Your task to perform on an android device: set the stopwatch Image 0: 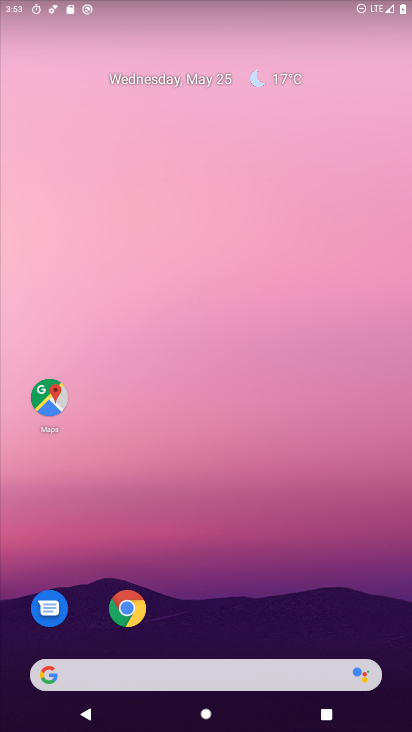
Step 0: drag from (236, 414) to (287, 140)
Your task to perform on an android device: set the stopwatch Image 1: 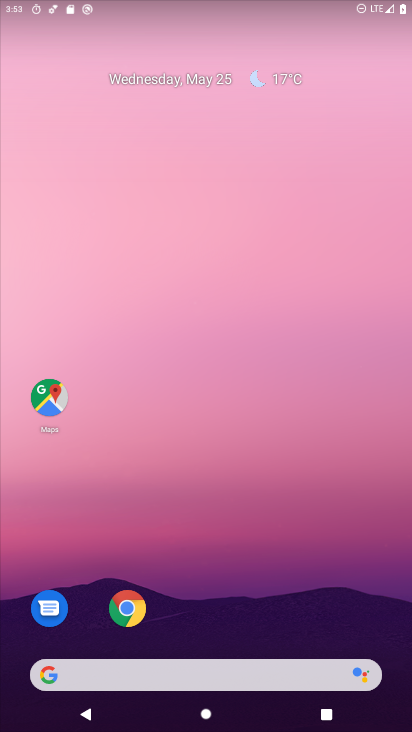
Step 1: drag from (212, 564) to (234, 148)
Your task to perform on an android device: set the stopwatch Image 2: 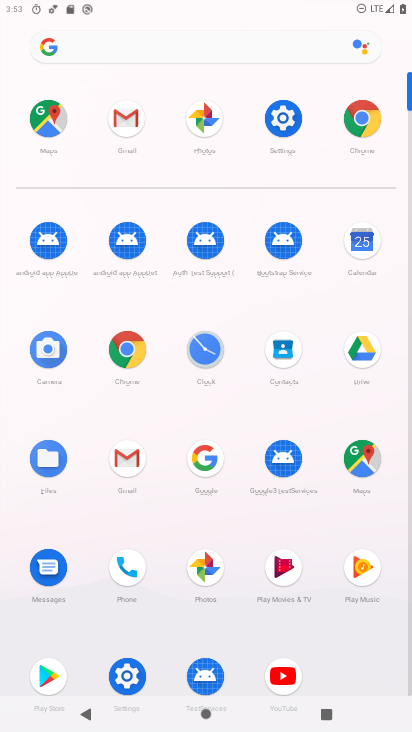
Step 2: click (205, 338)
Your task to perform on an android device: set the stopwatch Image 3: 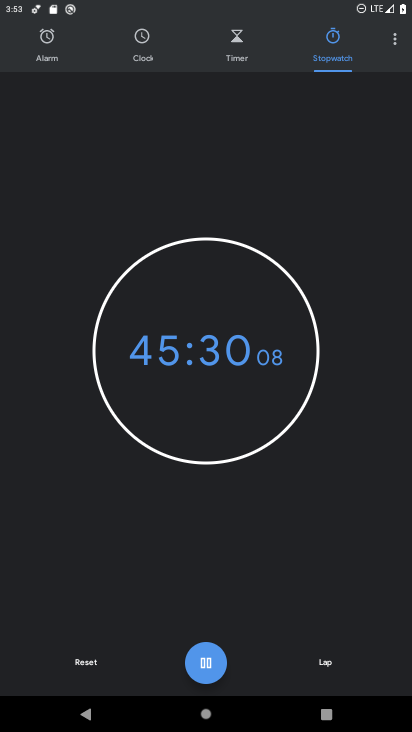
Step 3: click (220, 663)
Your task to perform on an android device: set the stopwatch Image 4: 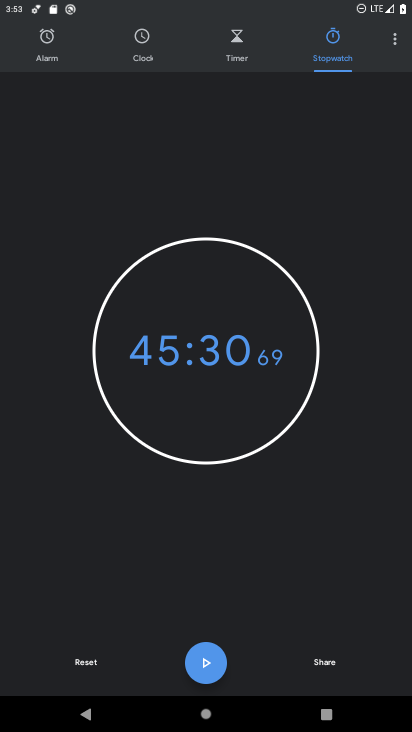
Step 4: task complete